Your task to perform on an android device: Open the Play Movies app and select the watchlist tab. Image 0: 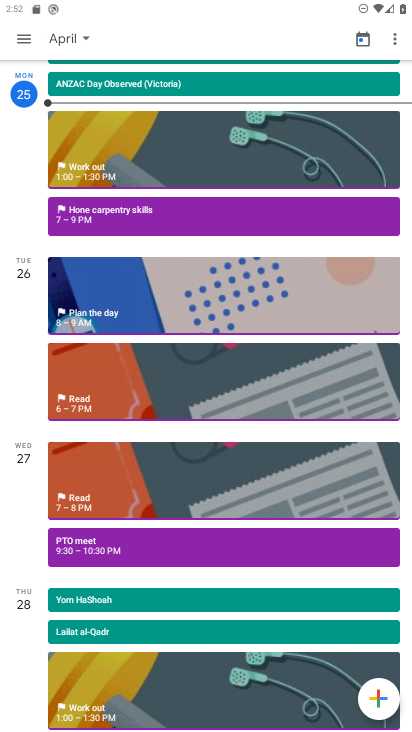
Step 0: press home button
Your task to perform on an android device: Open the Play Movies app and select the watchlist tab. Image 1: 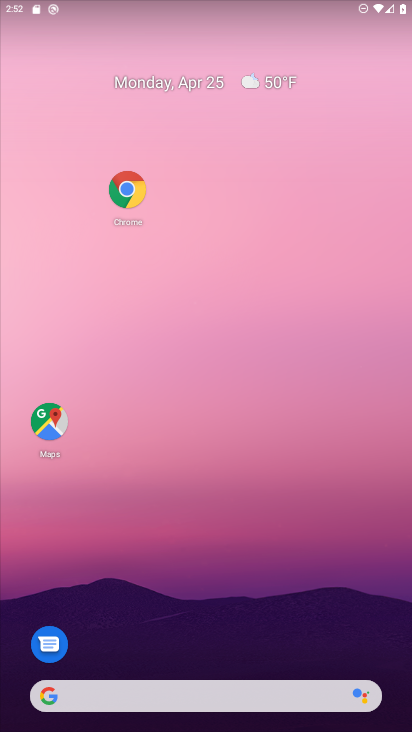
Step 1: drag from (156, 658) to (232, 78)
Your task to perform on an android device: Open the Play Movies app and select the watchlist tab. Image 2: 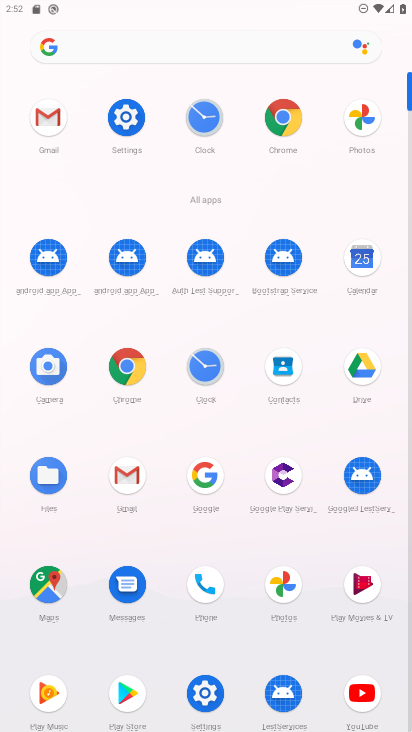
Step 2: drag from (311, 659) to (305, 369)
Your task to perform on an android device: Open the Play Movies app and select the watchlist tab. Image 3: 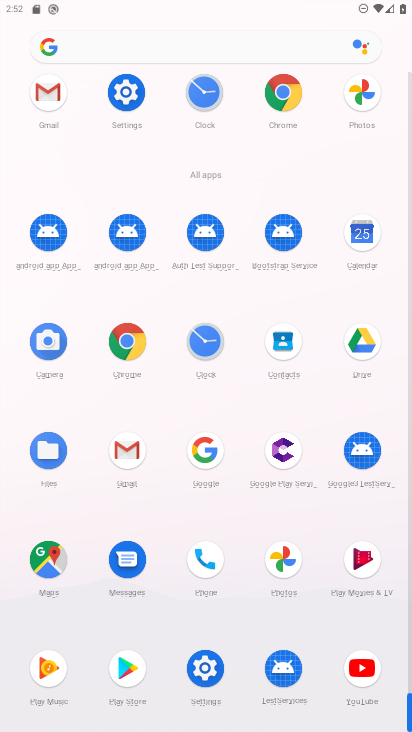
Step 3: click (365, 565)
Your task to perform on an android device: Open the Play Movies app and select the watchlist tab. Image 4: 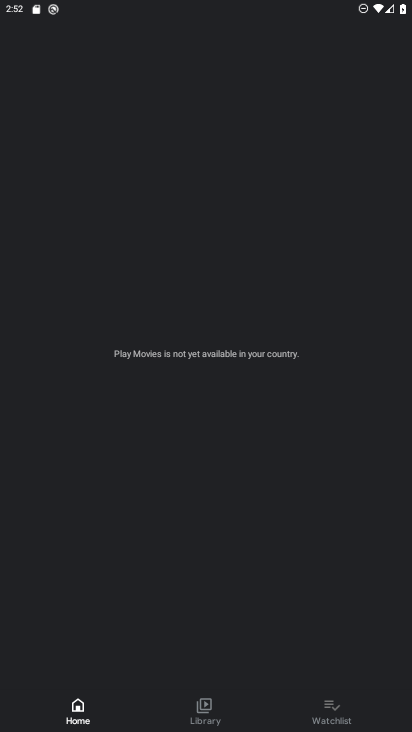
Step 4: click (323, 717)
Your task to perform on an android device: Open the Play Movies app and select the watchlist tab. Image 5: 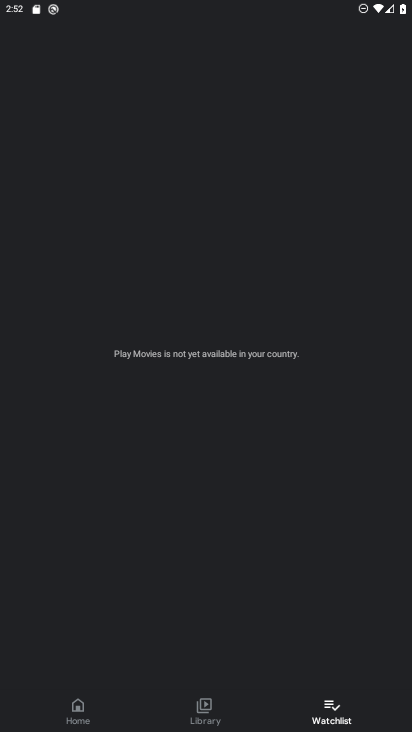
Step 5: task complete